Your task to perform on an android device: turn on improve location accuracy Image 0: 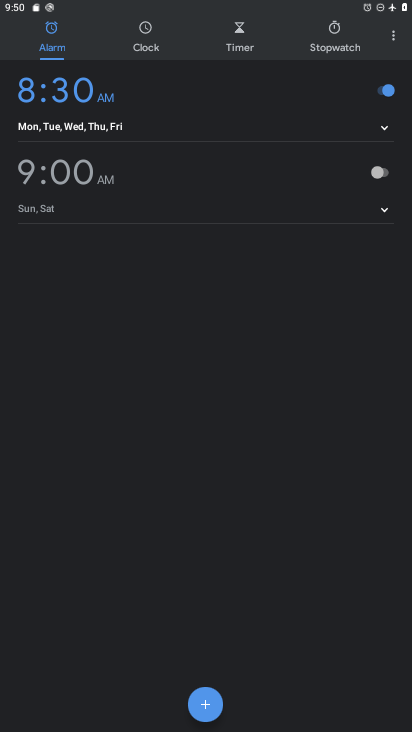
Step 0: press home button
Your task to perform on an android device: turn on improve location accuracy Image 1: 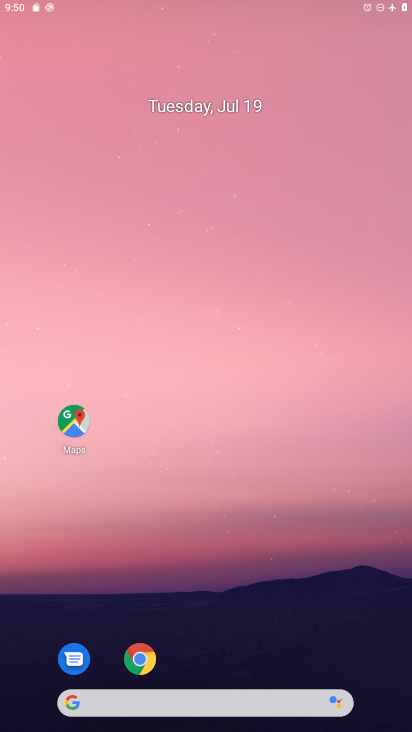
Step 1: drag from (327, 644) to (334, 250)
Your task to perform on an android device: turn on improve location accuracy Image 2: 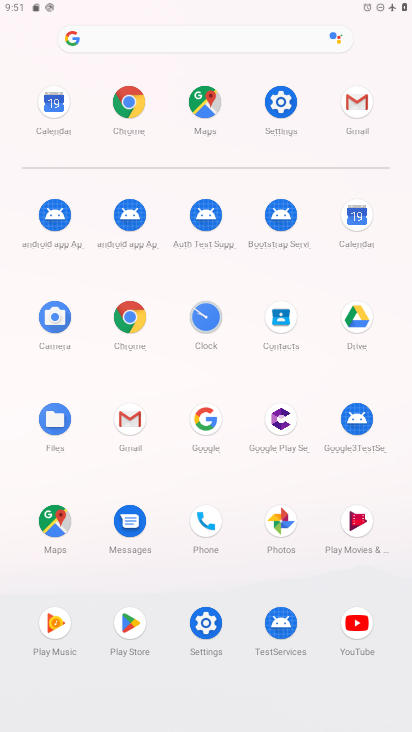
Step 2: click (288, 95)
Your task to perform on an android device: turn on improve location accuracy Image 3: 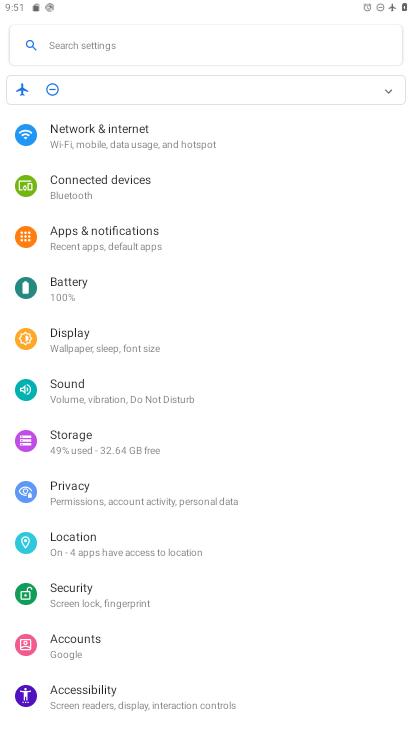
Step 3: click (106, 548)
Your task to perform on an android device: turn on improve location accuracy Image 4: 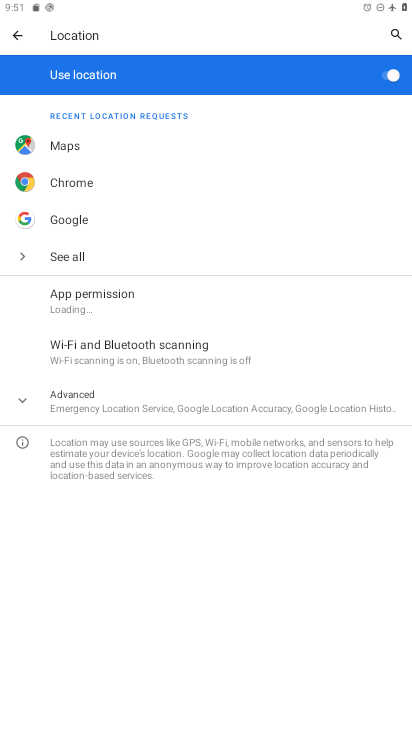
Step 4: click (162, 405)
Your task to perform on an android device: turn on improve location accuracy Image 5: 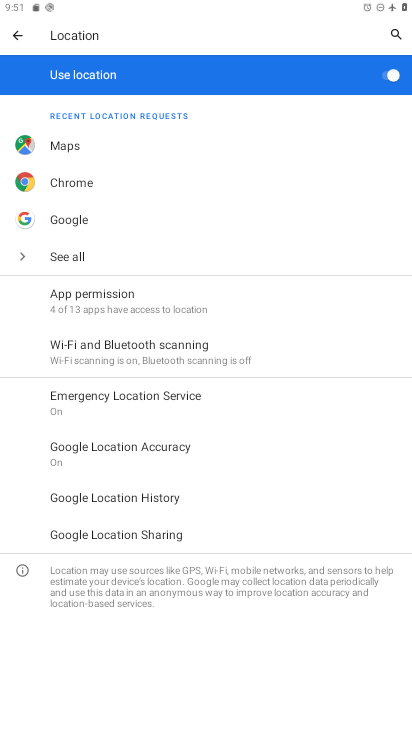
Step 5: click (127, 438)
Your task to perform on an android device: turn on improve location accuracy Image 6: 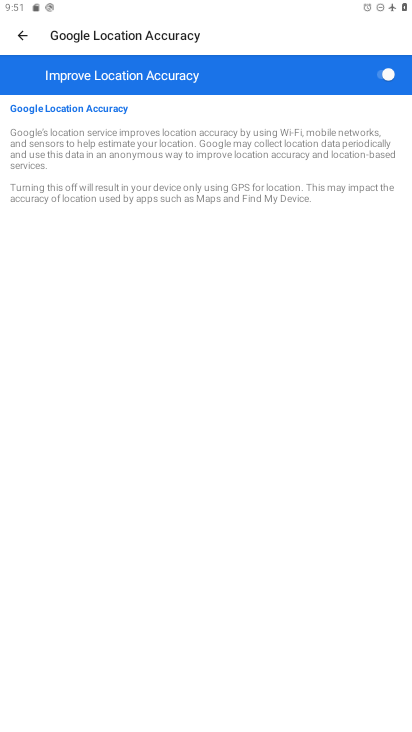
Step 6: task complete